Your task to perform on an android device: turn on the 24-hour format for clock Image 0: 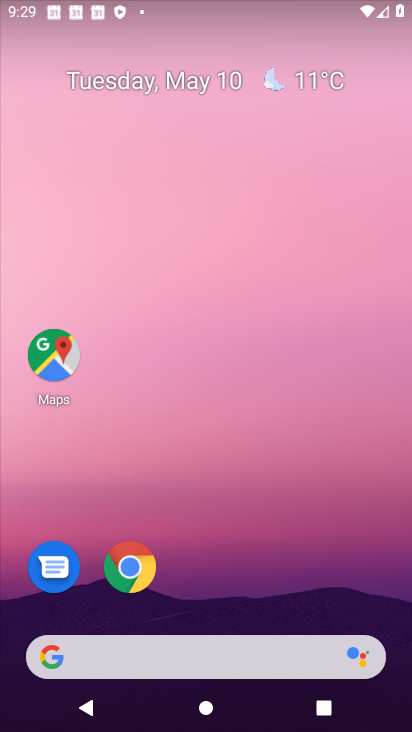
Step 0: drag from (193, 626) to (193, 245)
Your task to perform on an android device: turn on the 24-hour format for clock Image 1: 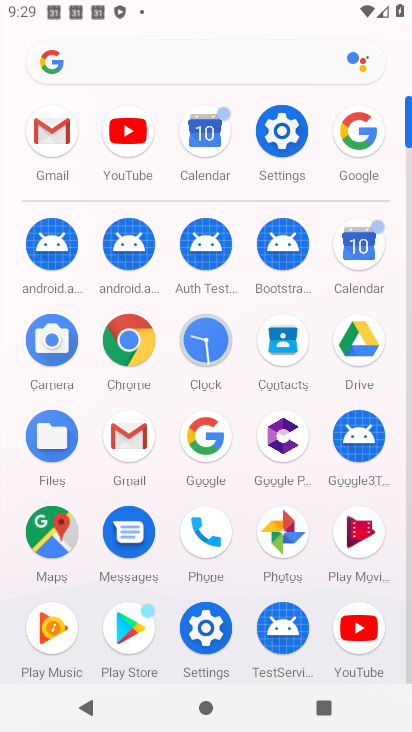
Step 1: click (199, 332)
Your task to perform on an android device: turn on the 24-hour format for clock Image 2: 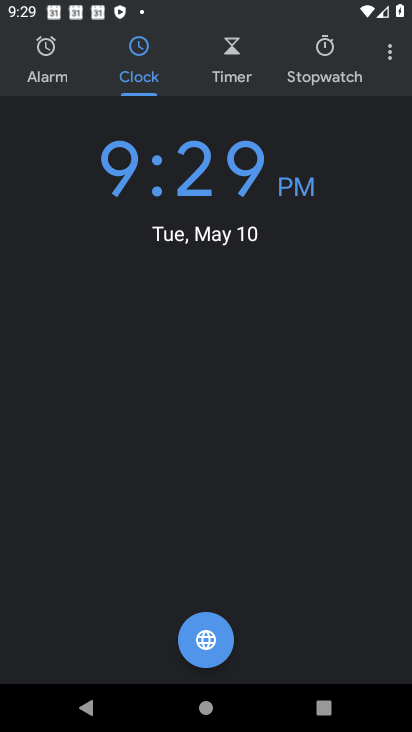
Step 2: click (398, 55)
Your task to perform on an android device: turn on the 24-hour format for clock Image 3: 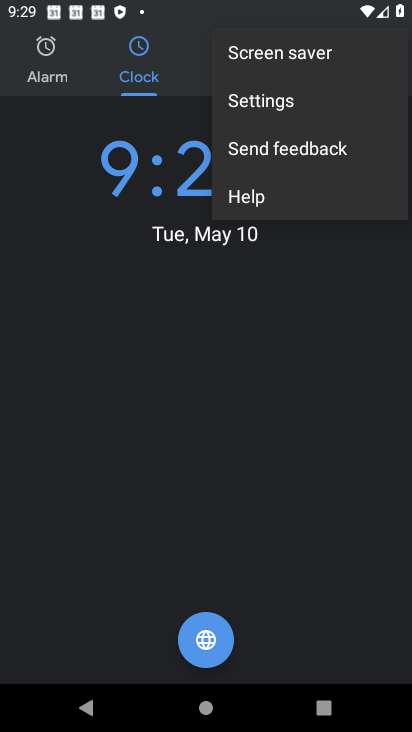
Step 3: click (262, 107)
Your task to perform on an android device: turn on the 24-hour format for clock Image 4: 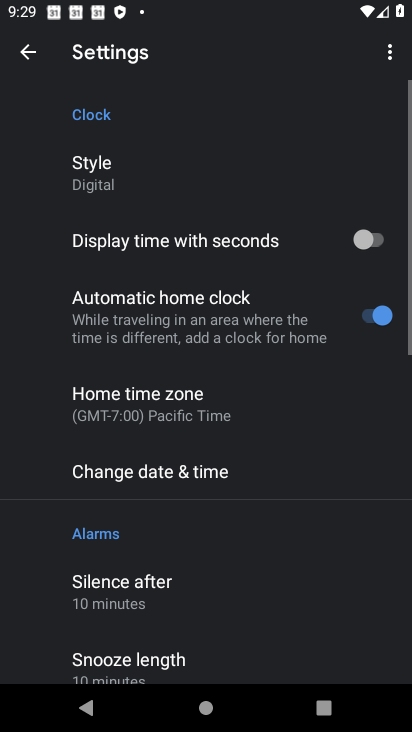
Step 4: drag from (207, 668) to (192, 309)
Your task to perform on an android device: turn on the 24-hour format for clock Image 5: 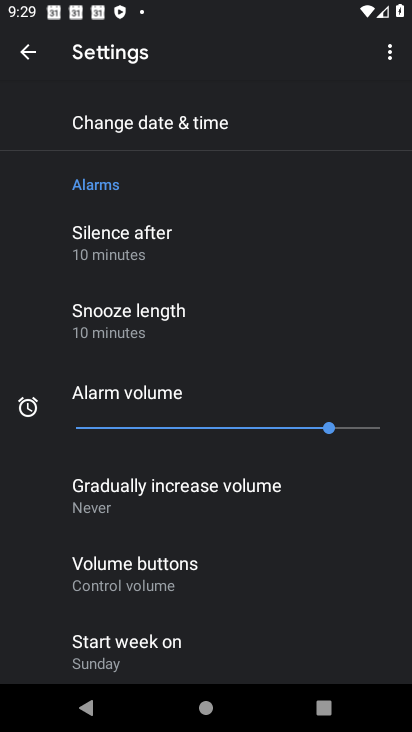
Step 5: drag from (189, 640) to (181, 299)
Your task to perform on an android device: turn on the 24-hour format for clock Image 6: 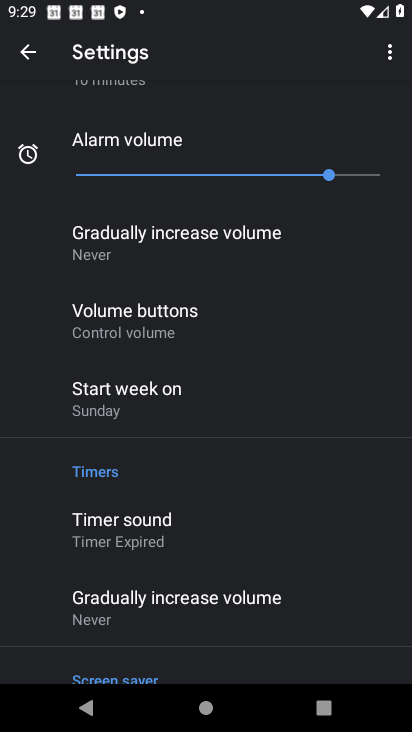
Step 6: drag from (173, 653) to (178, 302)
Your task to perform on an android device: turn on the 24-hour format for clock Image 7: 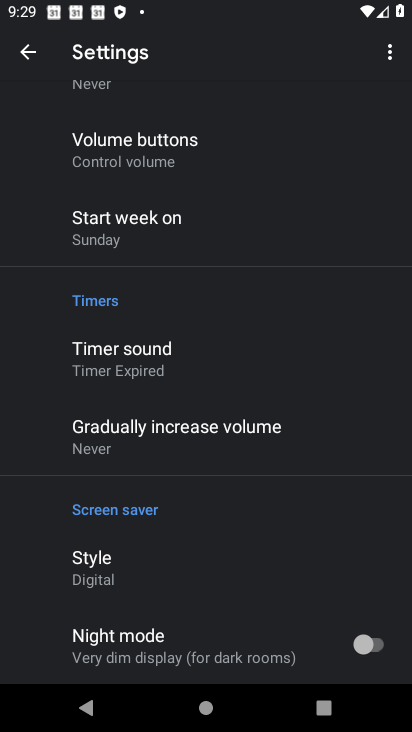
Step 7: drag from (188, 671) to (188, 378)
Your task to perform on an android device: turn on the 24-hour format for clock Image 8: 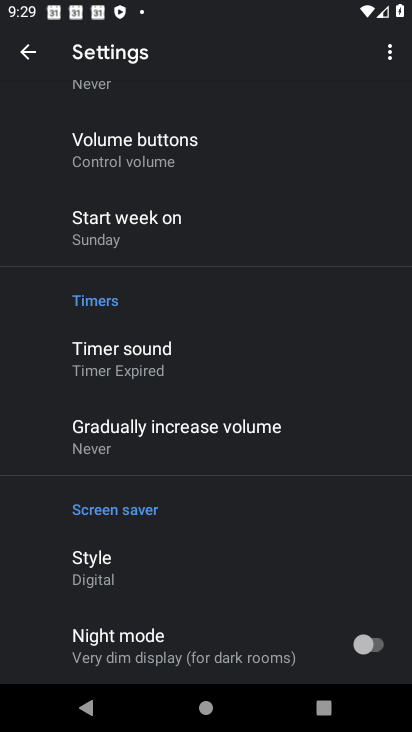
Step 8: drag from (201, 163) to (218, 589)
Your task to perform on an android device: turn on the 24-hour format for clock Image 9: 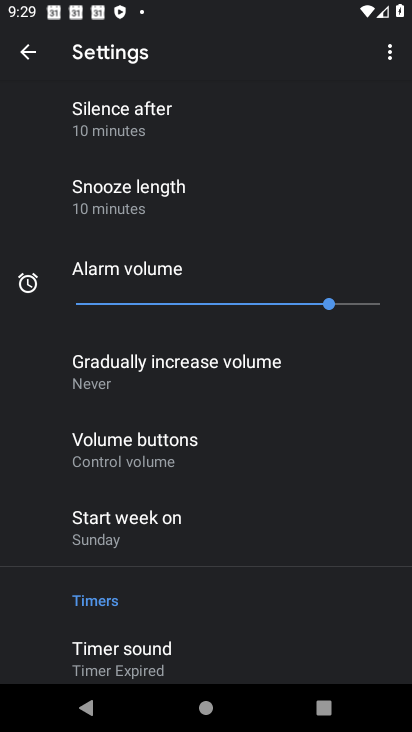
Step 9: drag from (169, 167) to (240, 561)
Your task to perform on an android device: turn on the 24-hour format for clock Image 10: 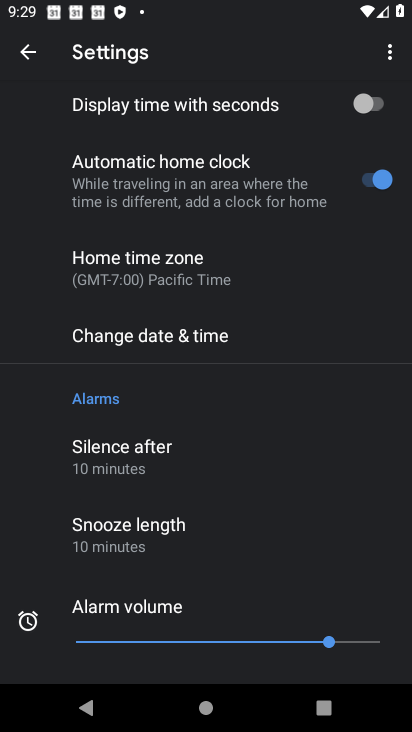
Step 10: click (181, 342)
Your task to perform on an android device: turn on the 24-hour format for clock Image 11: 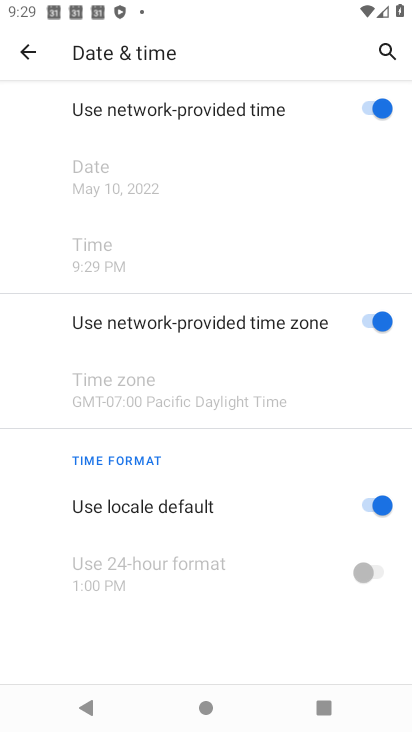
Step 11: click (364, 495)
Your task to perform on an android device: turn on the 24-hour format for clock Image 12: 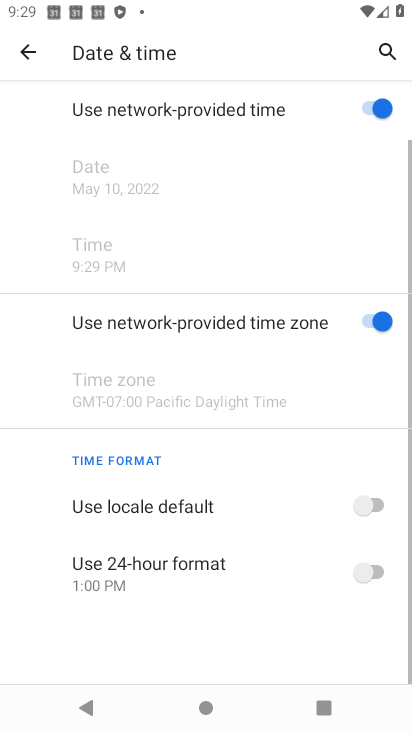
Step 12: click (377, 571)
Your task to perform on an android device: turn on the 24-hour format for clock Image 13: 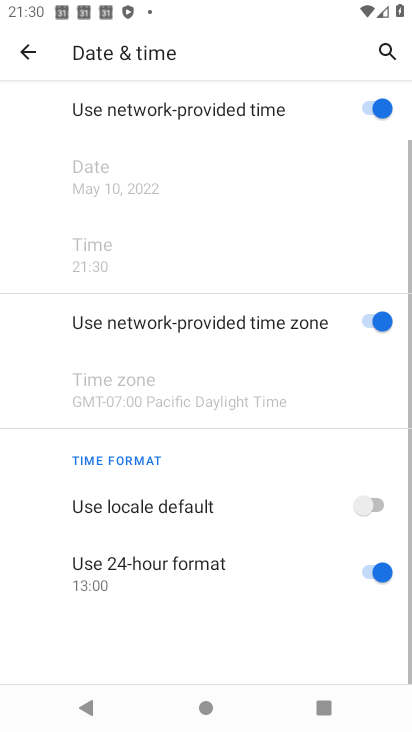
Step 13: task complete